Your task to perform on an android device: What is the news today? Image 0: 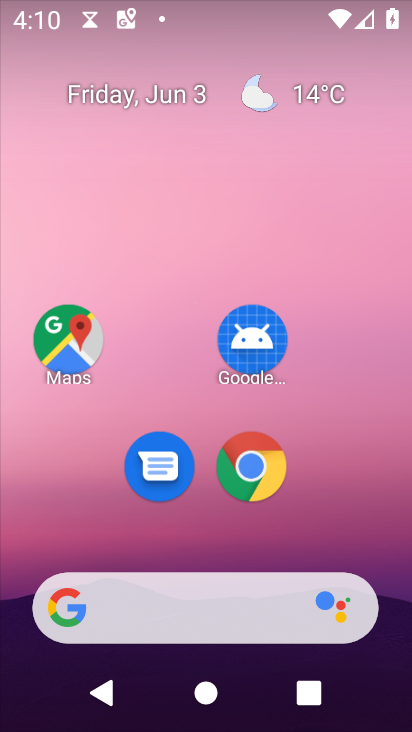
Step 0: drag from (347, 514) to (354, 6)
Your task to perform on an android device: What is the news today? Image 1: 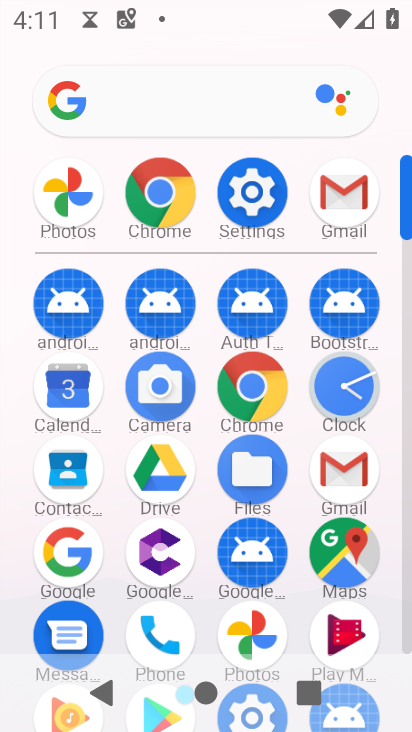
Step 1: drag from (193, 615) to (247, 13)
Your task to perform on an android device: What is the news today? Image 2: 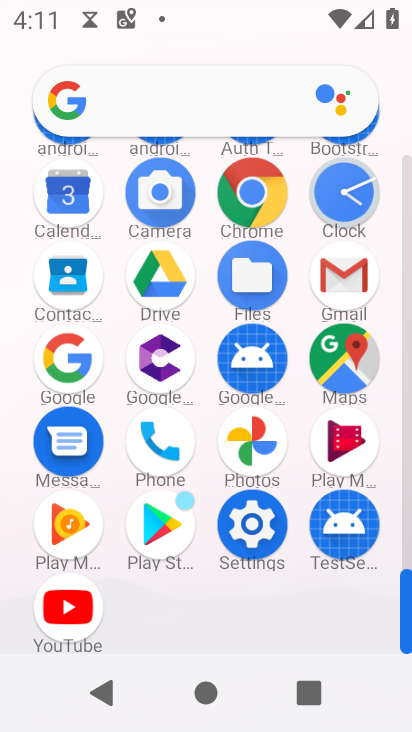
Step 2: click (77, 384)
Your task to perform on an android device: What is the news today? Image 3: 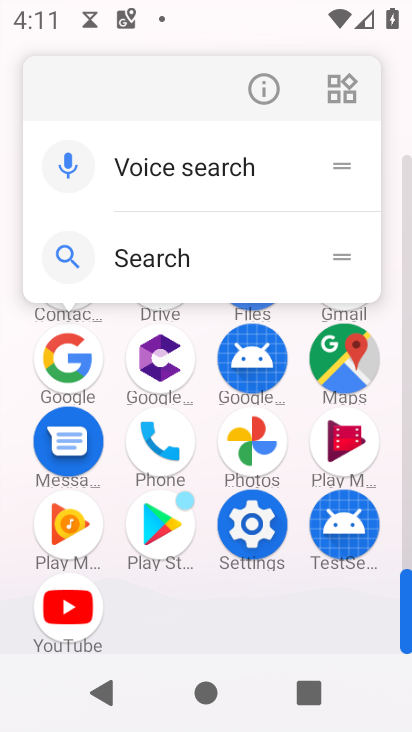
Step 3: click (59, 353)
Your task to perform on an android device: What is the news today? Image 4: 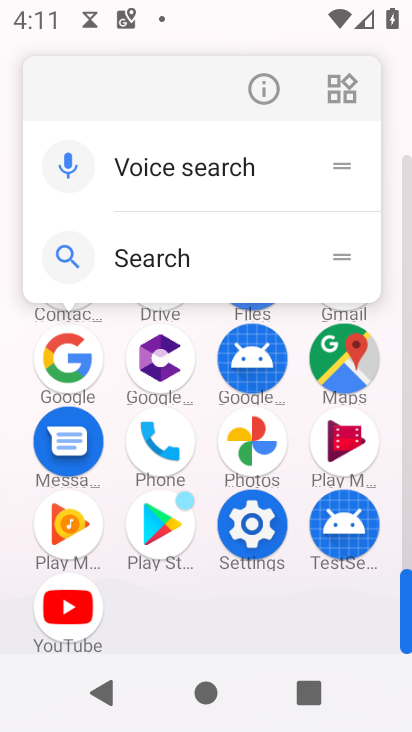
Step 4: click (265, 350)
Your task to perform on an android device: What is the news today? Image 5: 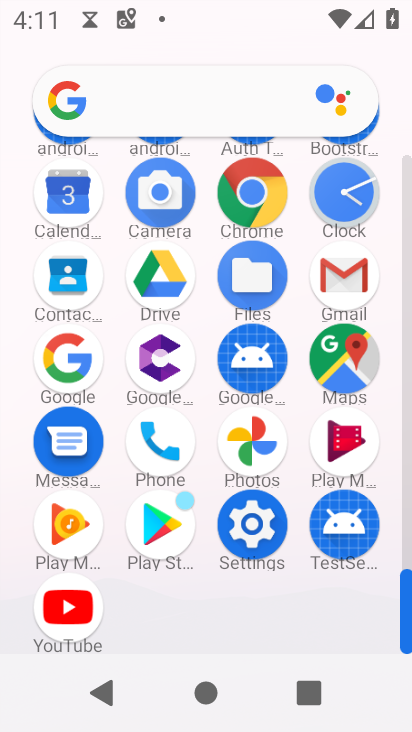
Step 5: click (295, 446)
Your task to perform on an android device: What is the news today? Image 6: 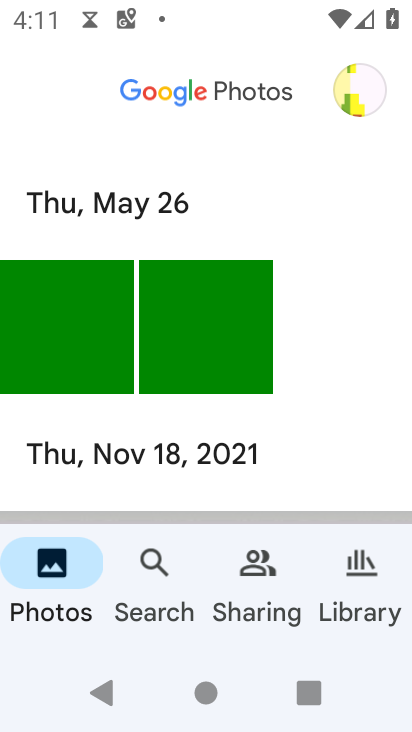
Step 6: press home button
Your task to perform on an android device: What is the news today? Image 7: 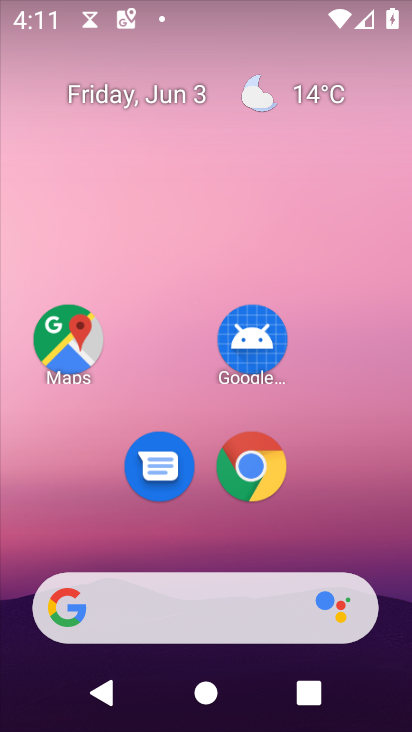
Step 7: click (140, 597)
Your task to perform on an android device: What is the news today? Image 8: 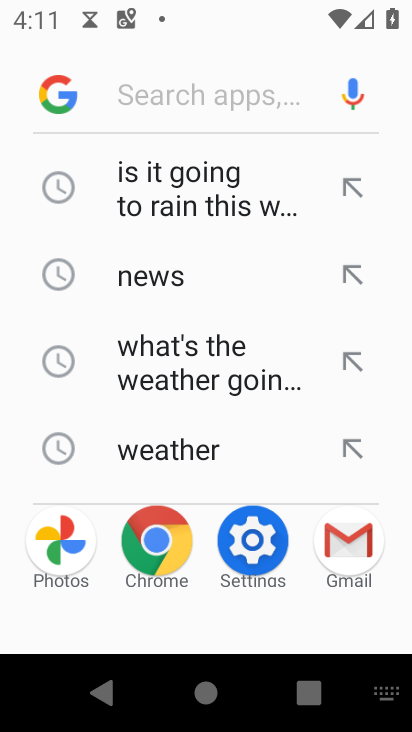
Step 8: type "news today"
Your task to perform on an android device: What is the news today? Image 9: 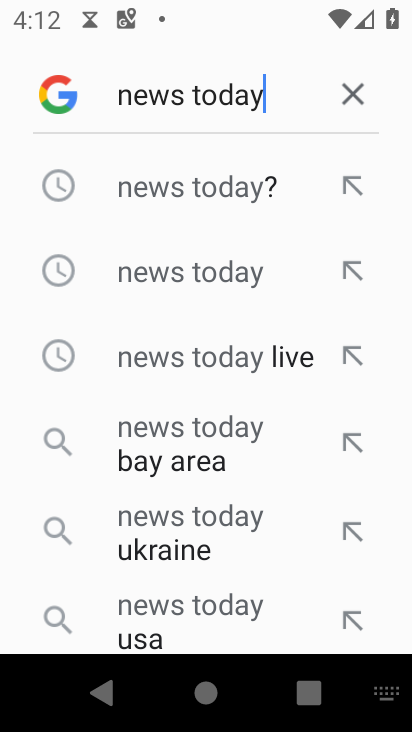
Step 9: click (137, 175)
Your task to perform on an android device: What is the news today? Image 10: 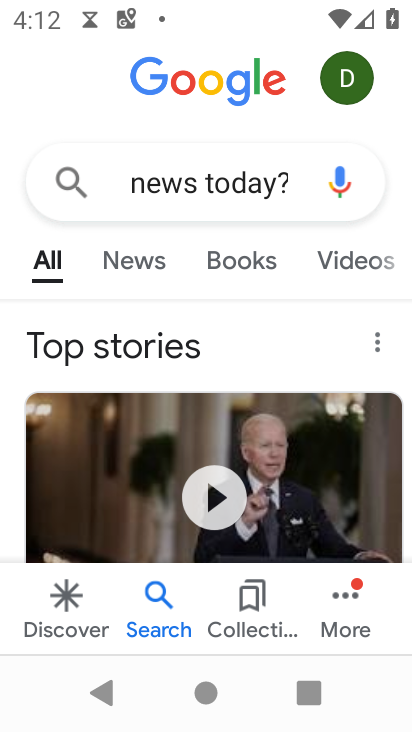
Step 10: task complete